Your task to perform on an android device: Clear all items from cart on bestbuy. Add "macbook" to the cart on bestbuy Image 0: 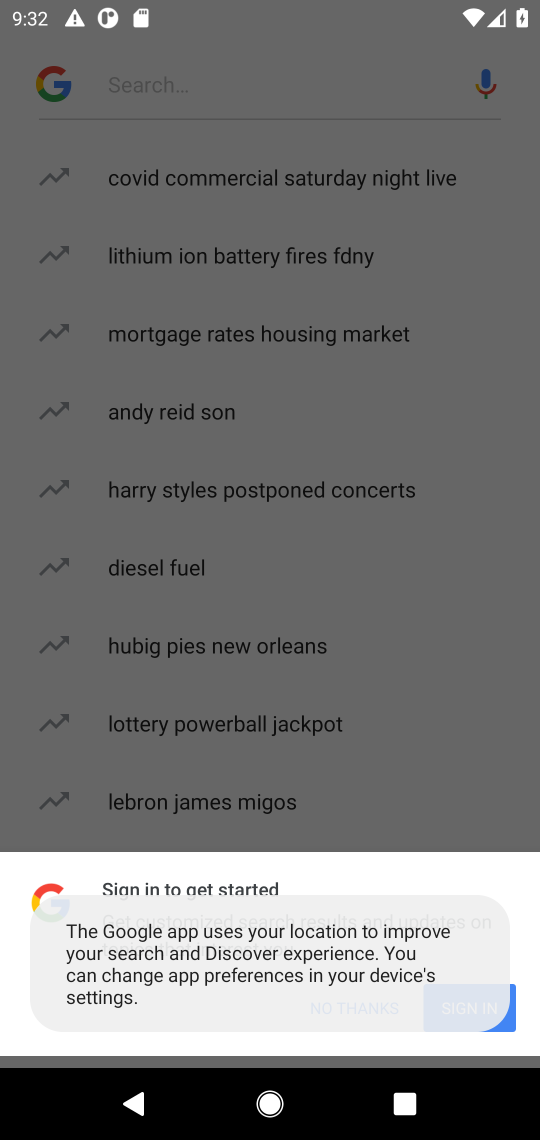
Step 0: press home button
Your task to perform on an android device: Clear all items from cart on bestbuy. Add "macbook" to the cart on bestbuy Image 1: 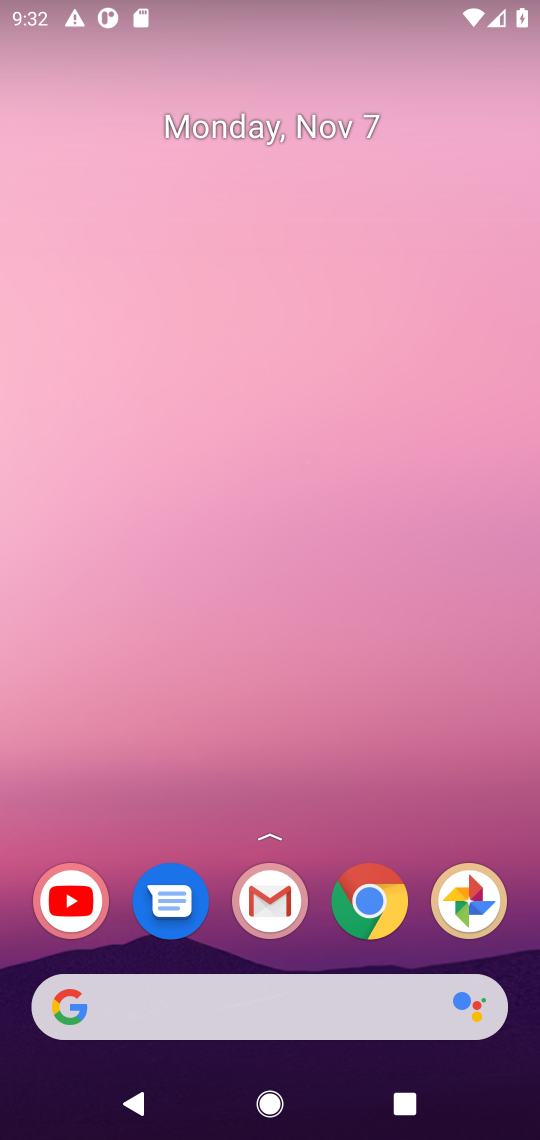
Step 1: click (347, 889)
Your task to perform on an android device: Clear all items from cart on bestbuy. Add "macbook" to the cart on bestbuy Image 2: 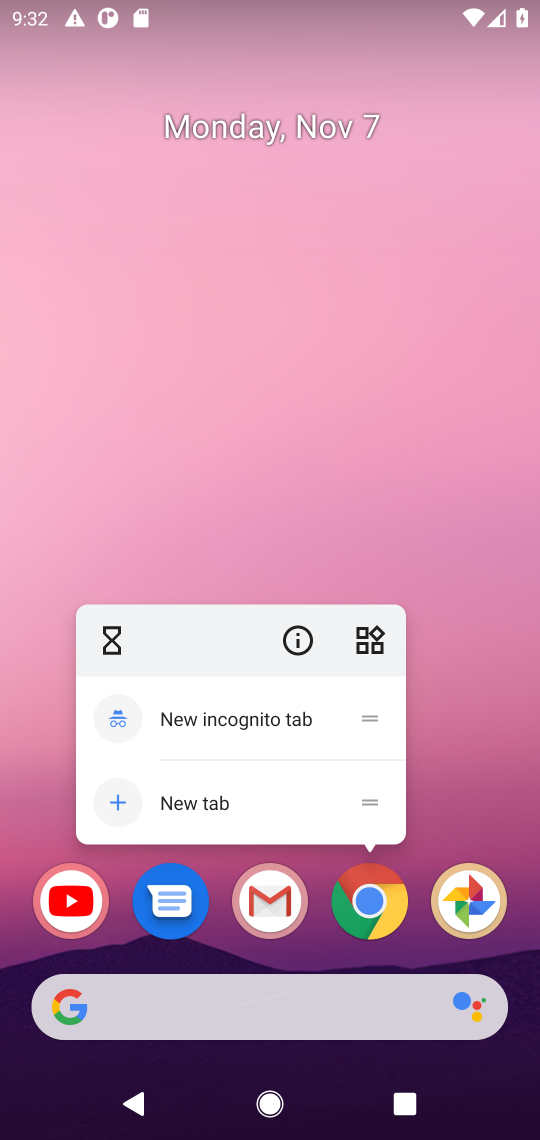
Step 2: click (347, 889)
Your task to perform on an android device: Clear all items from cart on bestbuy. Add "macbook" to the cart on bestbuy Image 3: 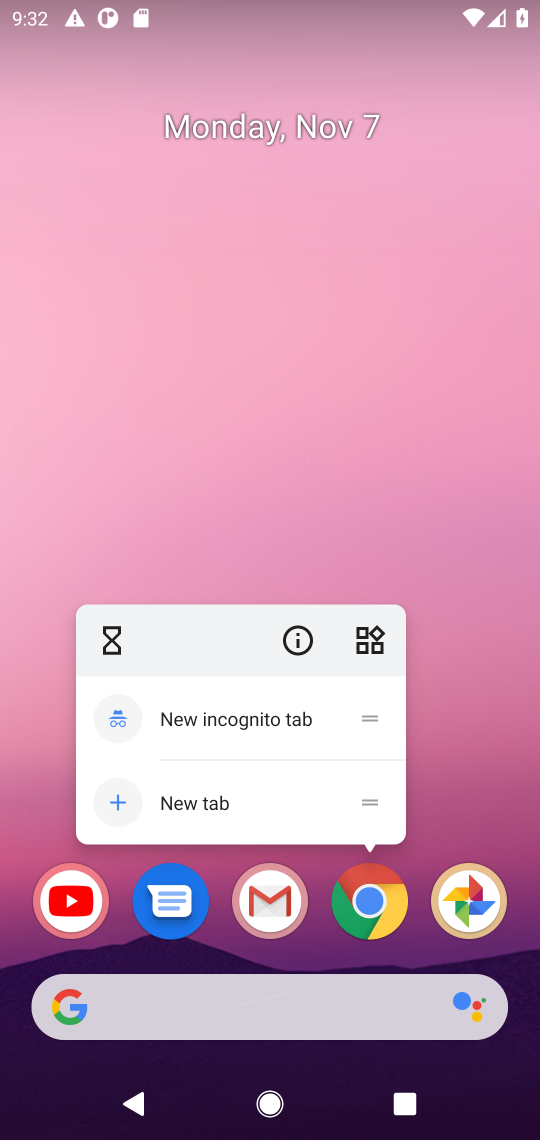
Step 3: click (347, 889)
Your task to perform on an android device: Clear all items from cart on bestbuy. Add "macbook" to the cart on bestbuy Image 4: 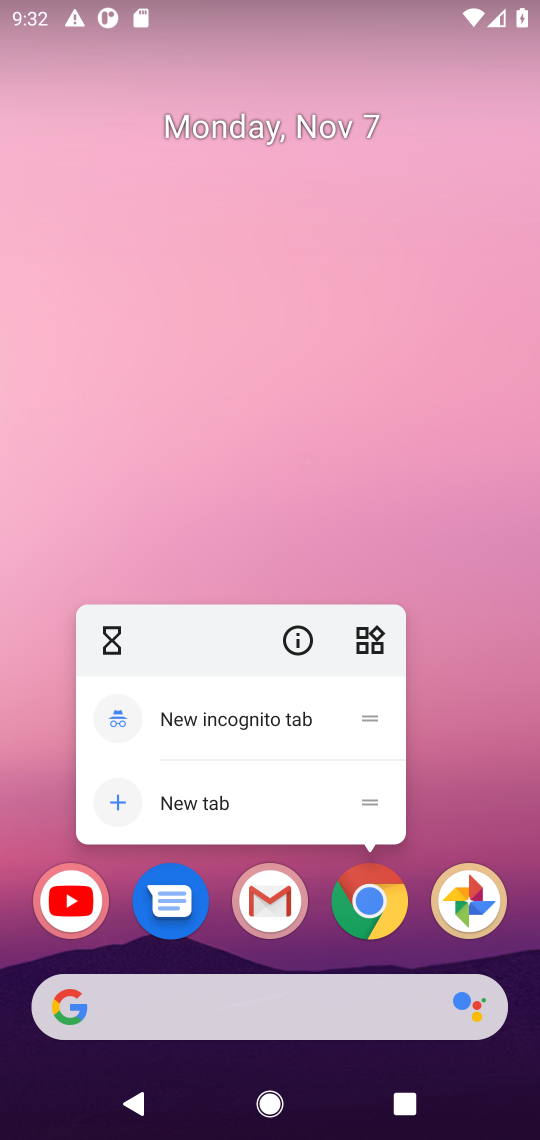
Step 4: click (347, 889)
Your task to perform on an android device: Clear all items from cart on bestbuy. Add "macbook" to the cart on bestbuy Image 5: 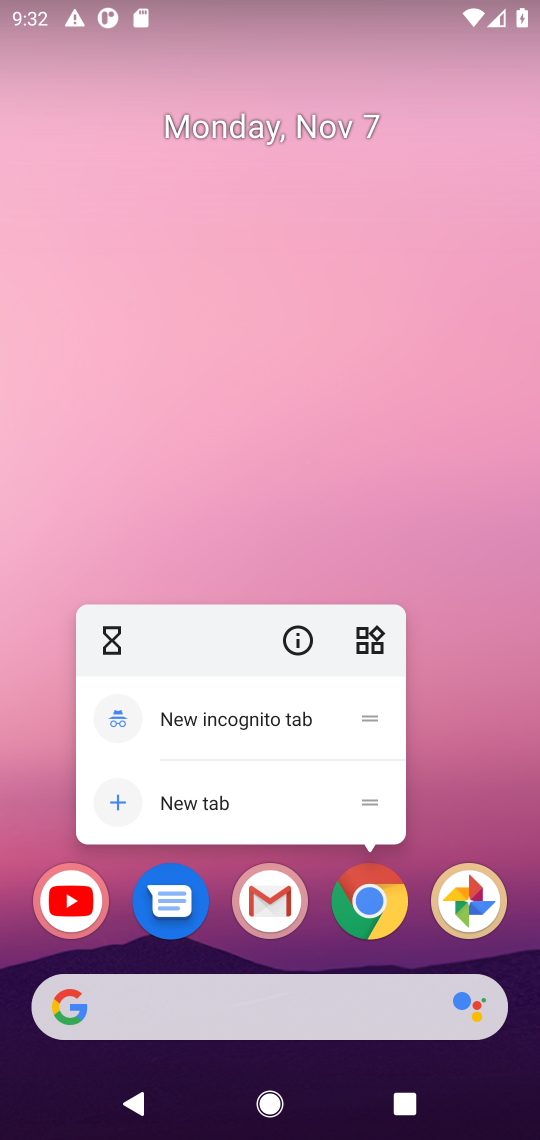
Step 5: click (347, 889)
Your task to perform on an android device: Clear all items from cart on bestbuy. Add "macbook" to the cart on bestbuy Image 6: 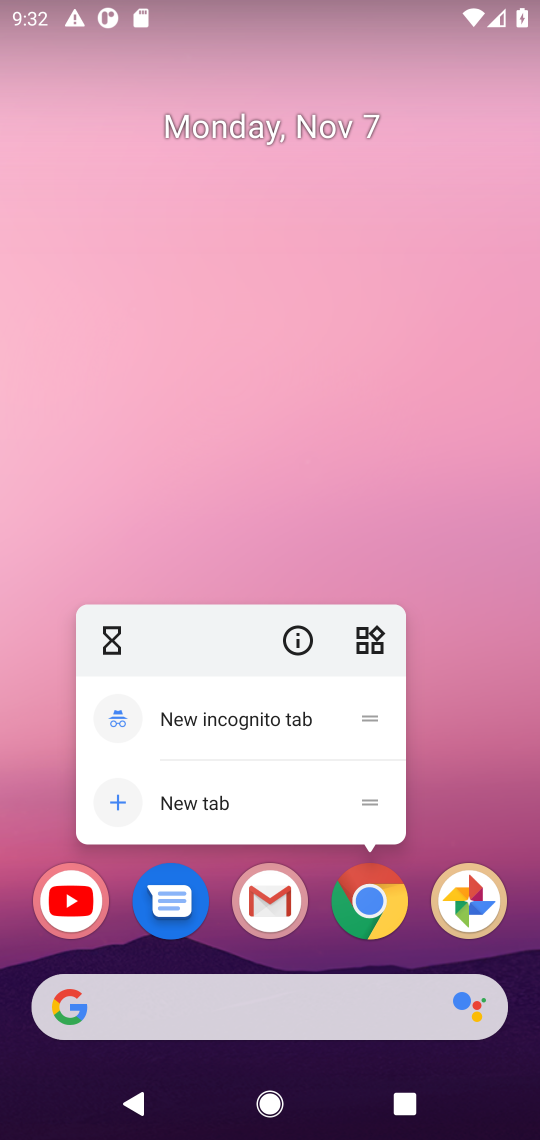
Step 6: click (347, 889)
Your task to perform on an android device: Clear all items from cart on bestbuy. Add "macbook" to the cart on bestbuy Image 7: 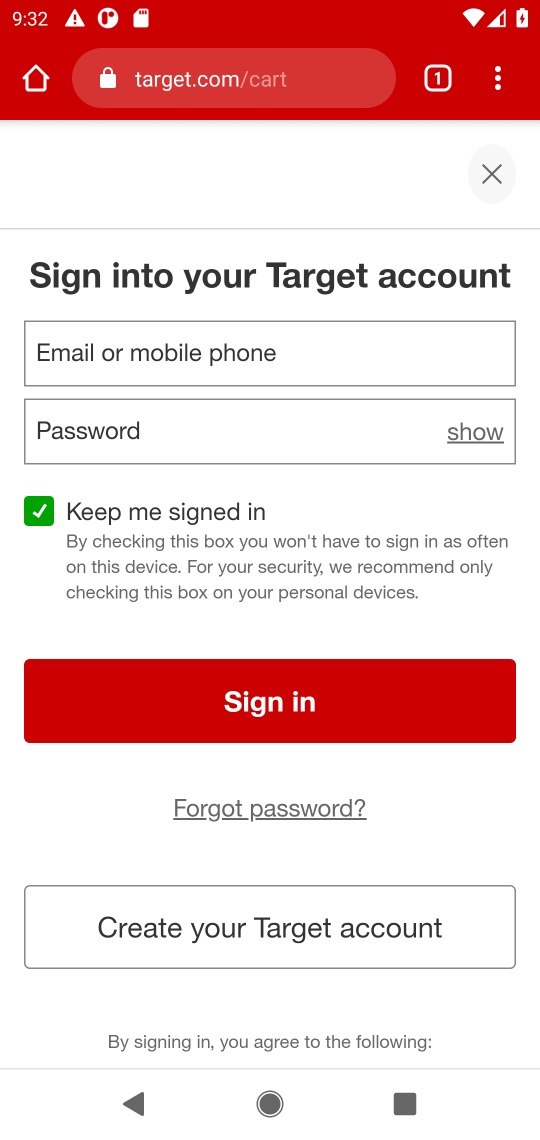
Step 7: click (254, 60)
Your task to perform on an android device: Clear all items from cart on bestbuy. Add "macbook" to the cart on bestbuy Image 8: 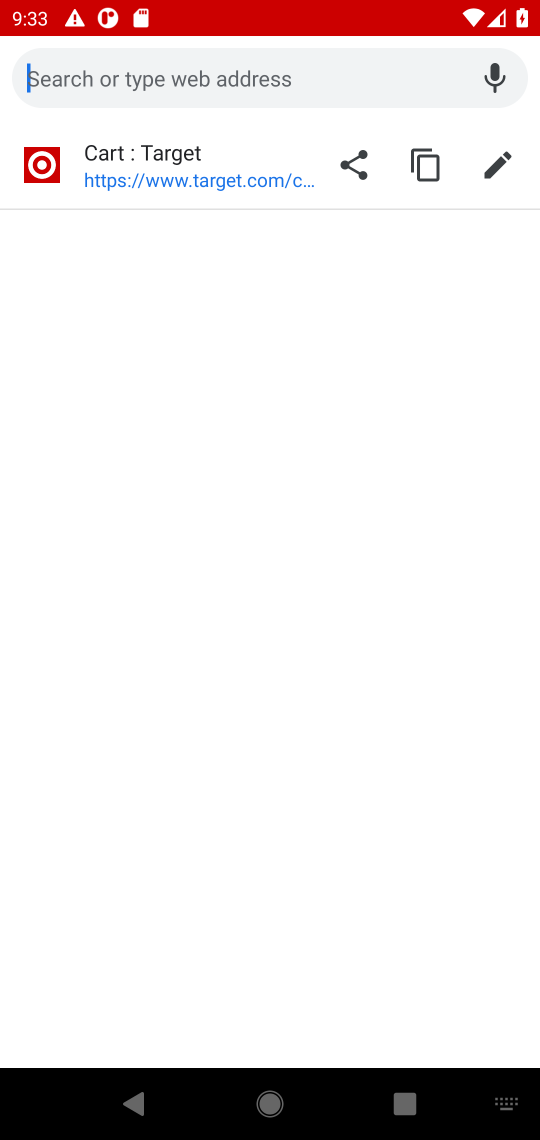
Step 8: type "bestbuy.com"
Your task to perform on an android device: Clear all items from cart on bestbuy. Add "macbook" to the cart on bestbuy Image 9: 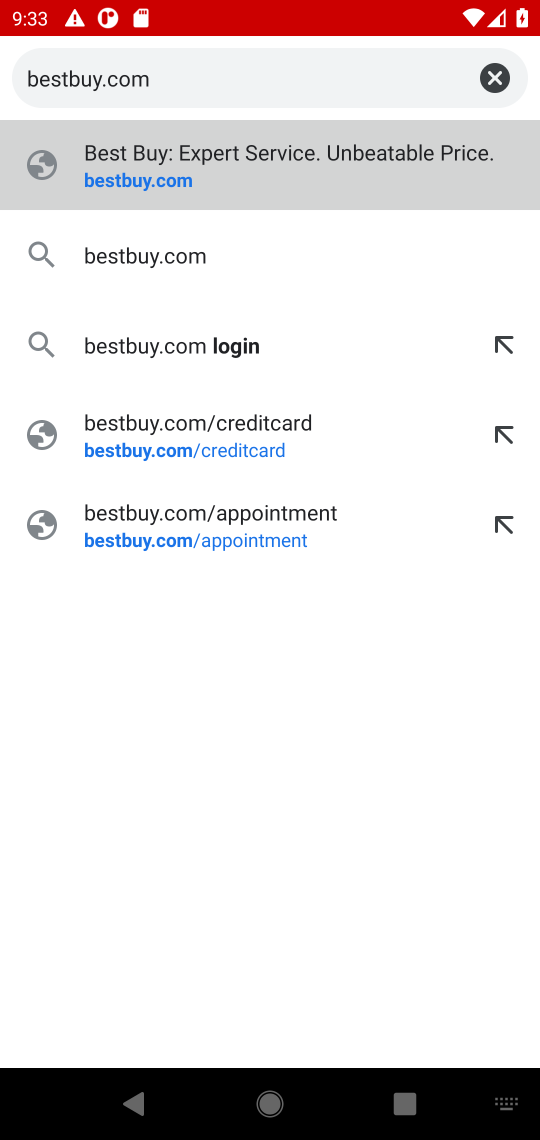
Step 9: click (197, 188)
Your task to perform on an android device: Clear all items from cart on bestbuy. Add "macbook" to the cart on bestbuy Image 10: 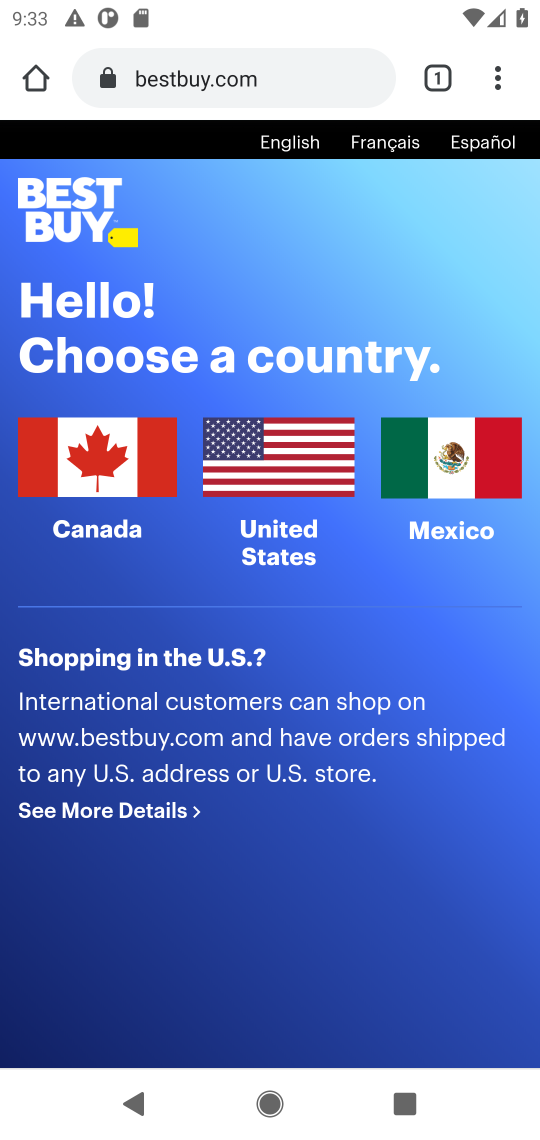
Step 10: click (262, 495)
Your task to perform on an android device: Clear all items from cart on bestbuy. Add "macbook" to the cart on bestbuy Image 11: 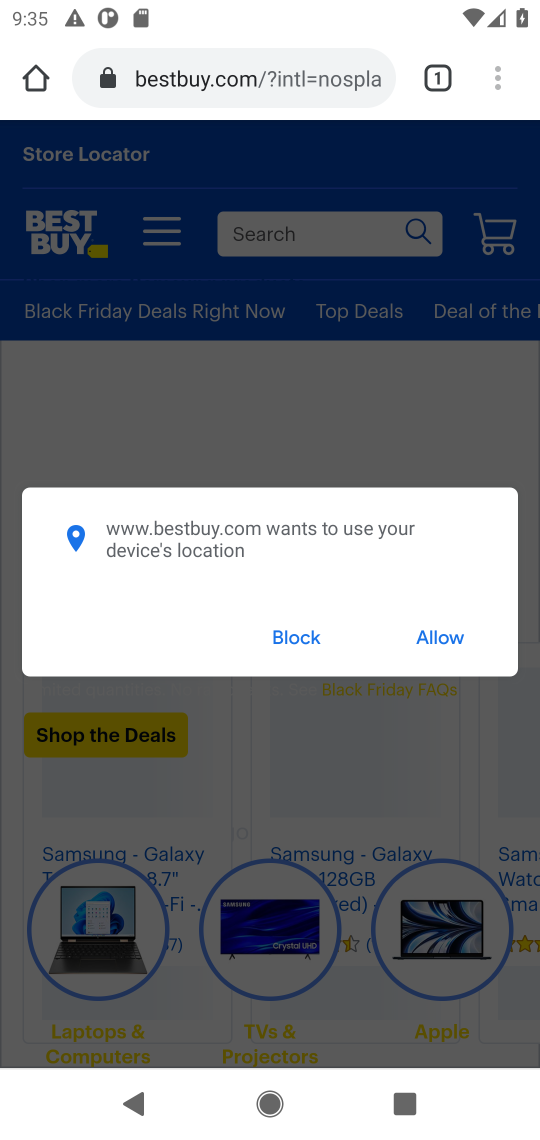
Step 11: click (426, 639)
Your task to perform on an android device: Clear all items from cart on bestbuy. Add "macbook" to the cart on bestbuy Image 12: 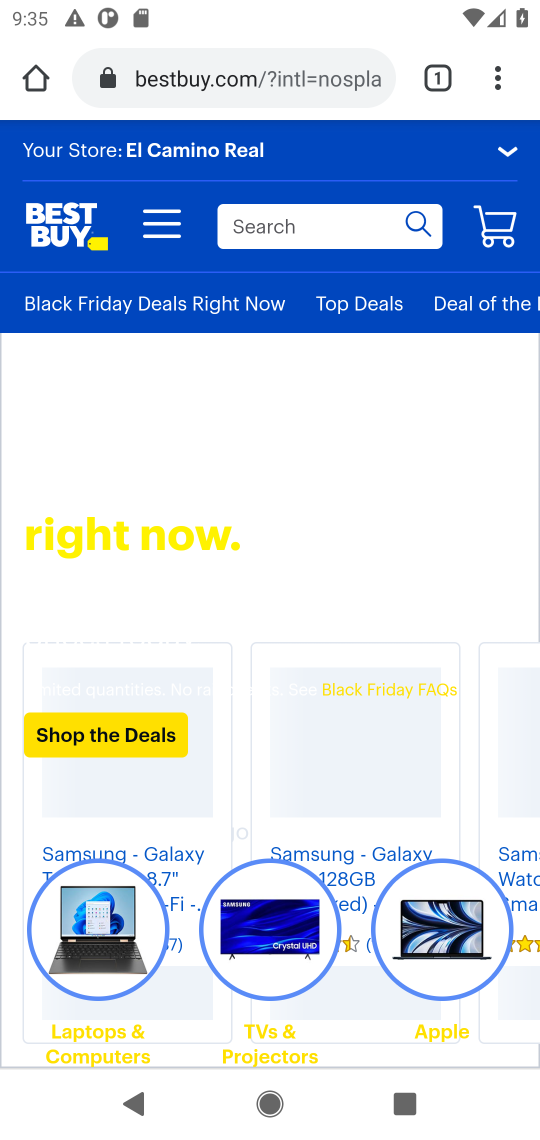
Step 12: click (252, 89)
Your task to perform on an android device: Clear all items from cart on bestbuy. Add "macbook" to the cart on bestbuy Image 13: 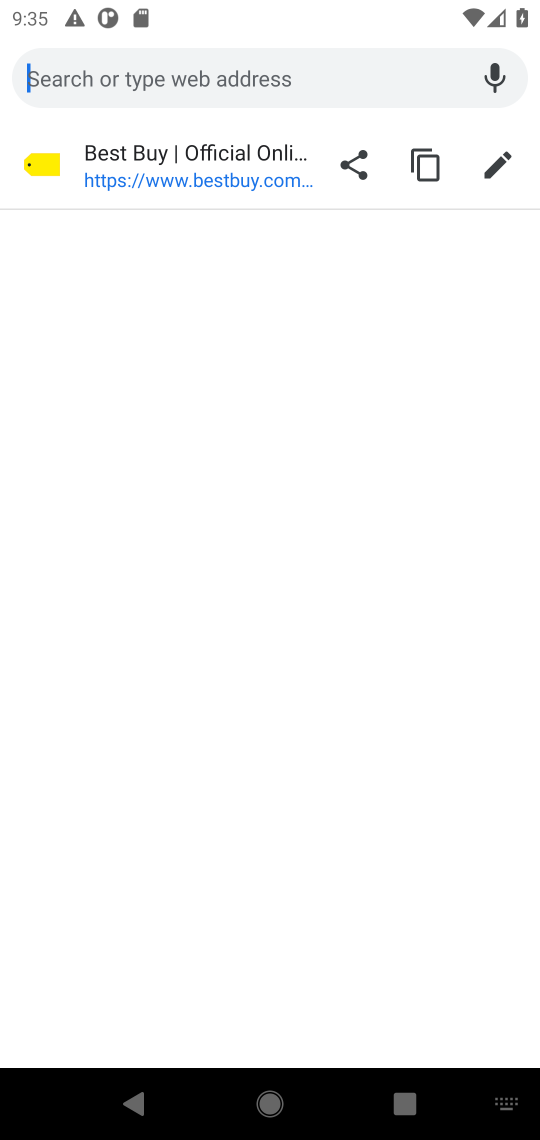
Step 13: click (200, 181)
Your task to perform on an android device: Clear all items from cart on bestbuy. Add "macbook" to the cart on bestbuy Image 14: 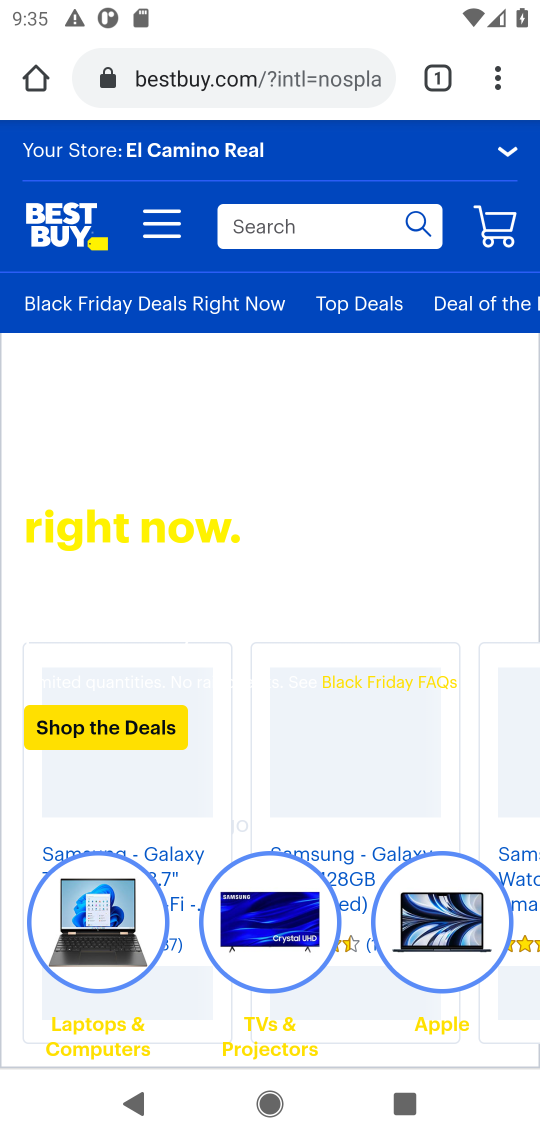
Step 14: click (303, 229)
Your task to perform on an android device: Clear all items from cart on bestbuy. Add "macbook" to the cart on bestbuy Image 15: 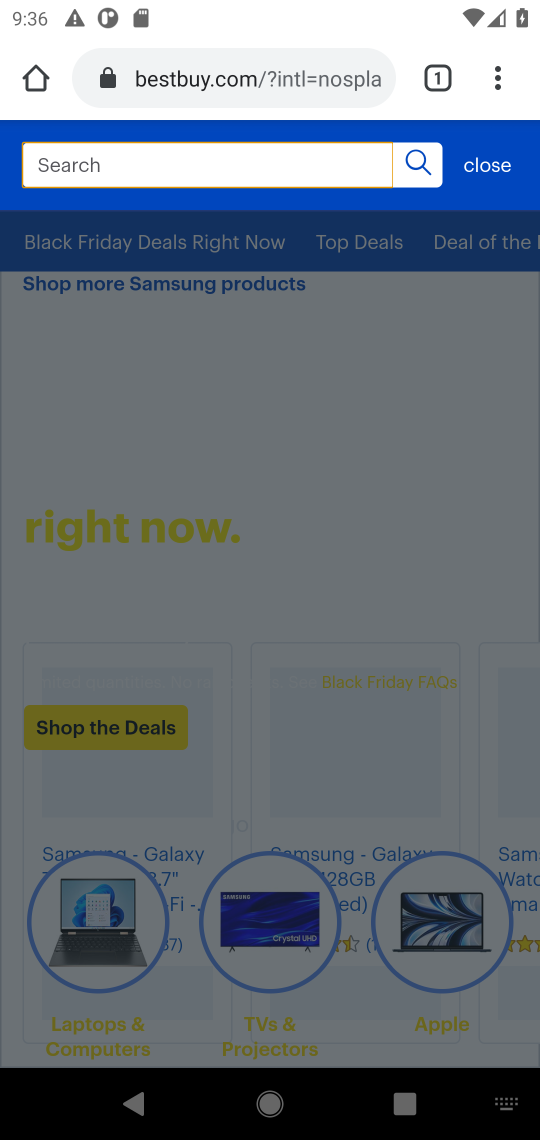
Step 15: type "macbook"
Your task to perform on an android device: Clear all items from cart on bestbuy. Add "macbook" to the cart on bestbuy Image 16: 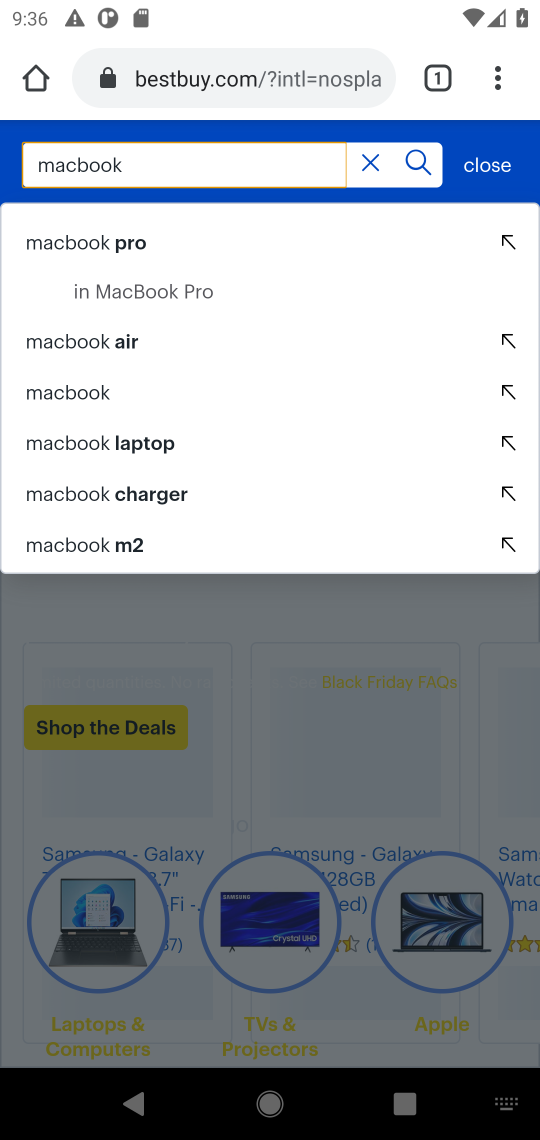
Step 16: press enter
Your task to perform on an android device: Clear all items from cart on bestbuy. Add "macbook" to the cart on bestbuy Image 17: 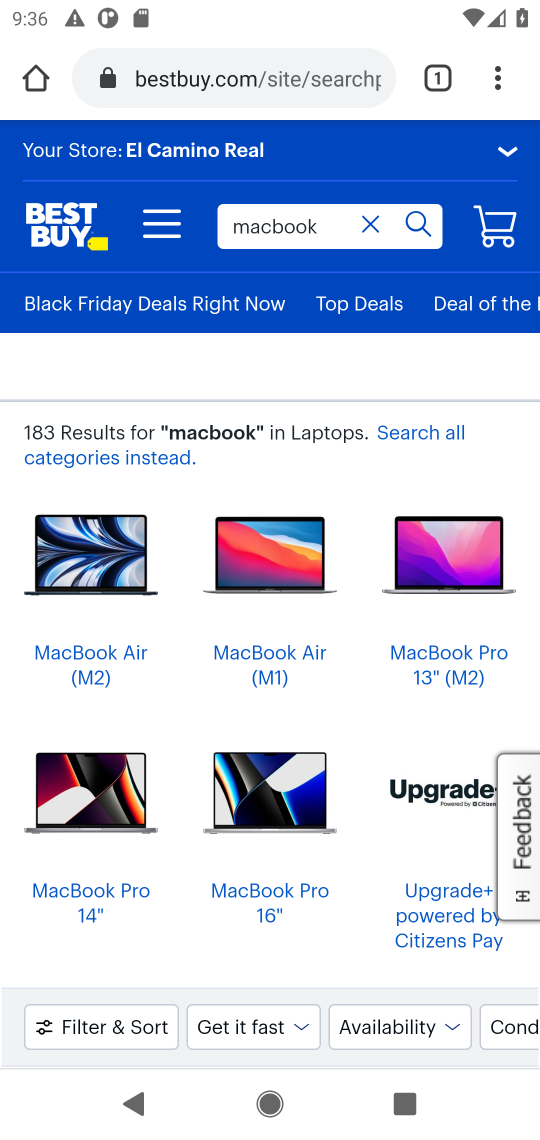
Step 17: click (85, 577)
Your task to perform on an android device: Clear all items from cart on bestbuy. Add "macbook" to the cart on bestbuy Image 18: 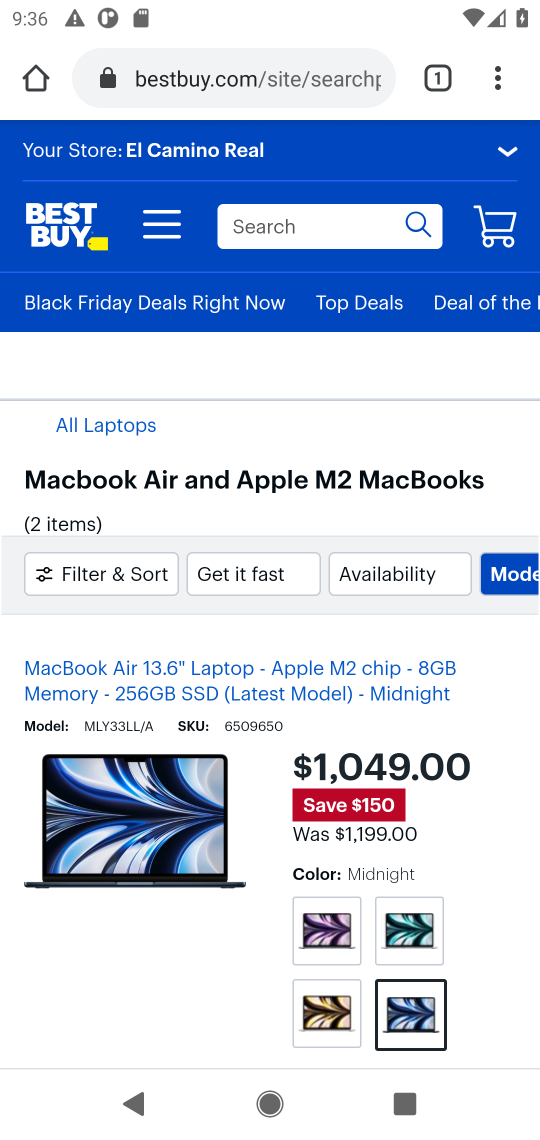
Step 18: drag from (190, 981) to (106, 485)
Your task to perform on an android device: Clear all items from cart on bestbuy. Add "macbook" to the cart on bestbuy Image 19: 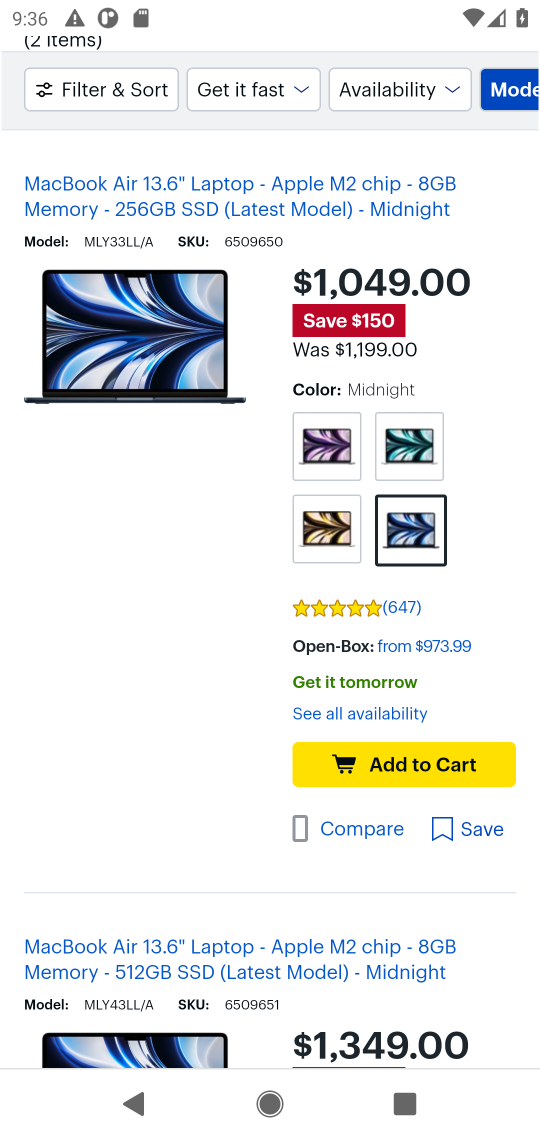
Step 19: click (358, 761)
Your task to perform on an android device: Clear all items from cart on bestbuy. Add "macbook" to the cart on bestbuy Image 20: 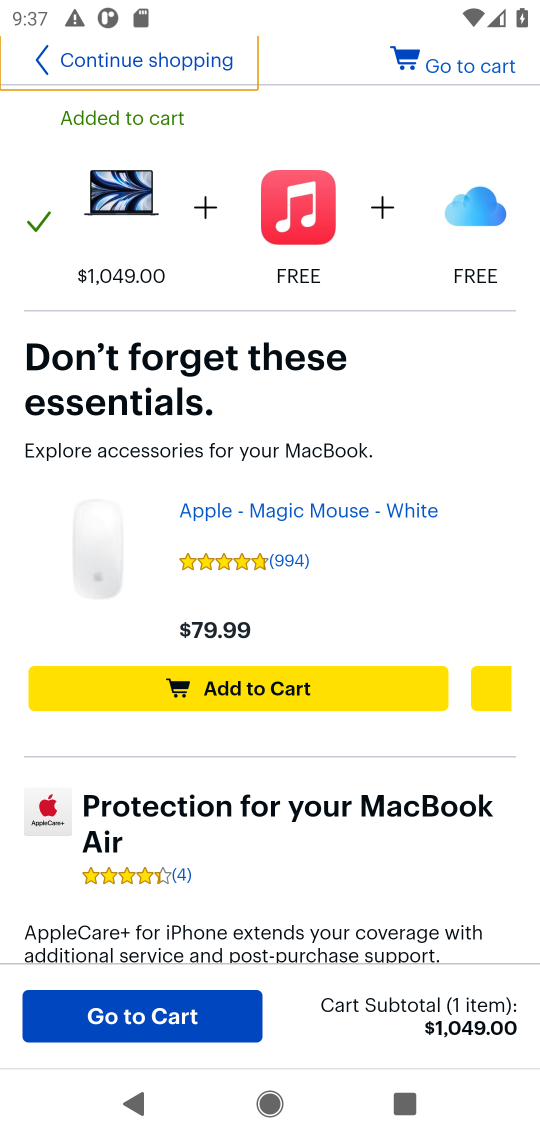
Step 20: click (241, 693)
Your task to perform on an android device: Clear all items from cart on bestbuy. Add "macbook" to the cart on bestbuy Image 21: 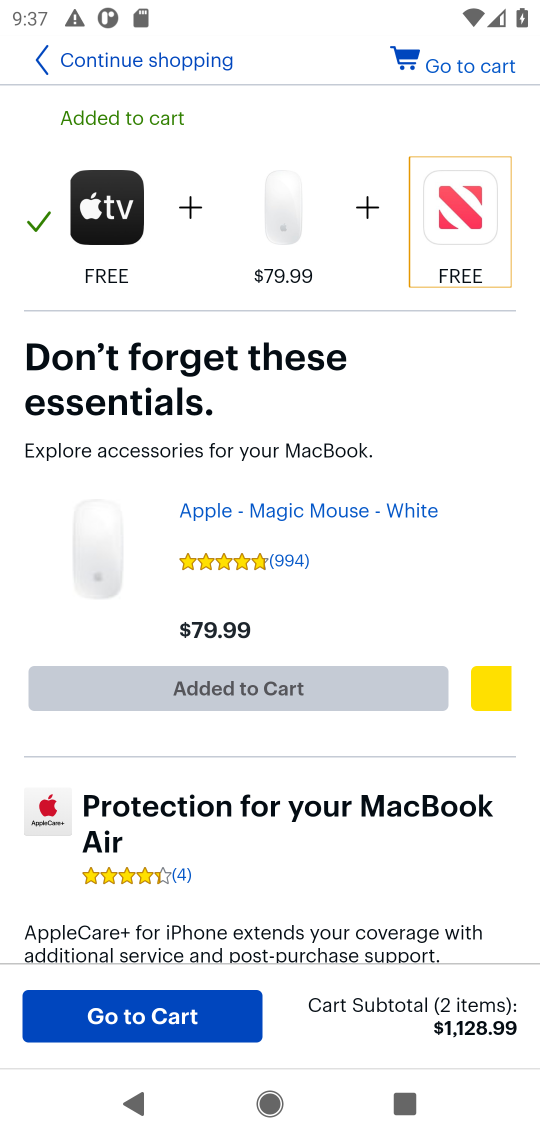
Step 21: task complete